Your task to perform on an android device: change text size in settings app Image 0: 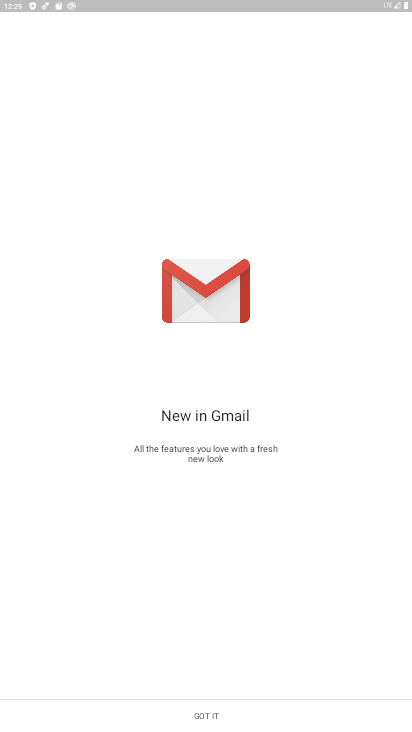
Step 0: press home button
Your task to perform on an android device: change text size in settings app Image 1: 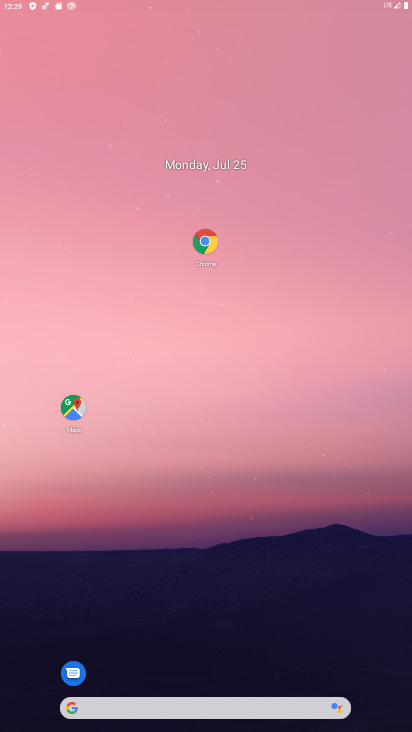
Step 1: drag from (280, 655) to (371, 13)
Your task to perform on an android device: change text size in settings app Image 2: 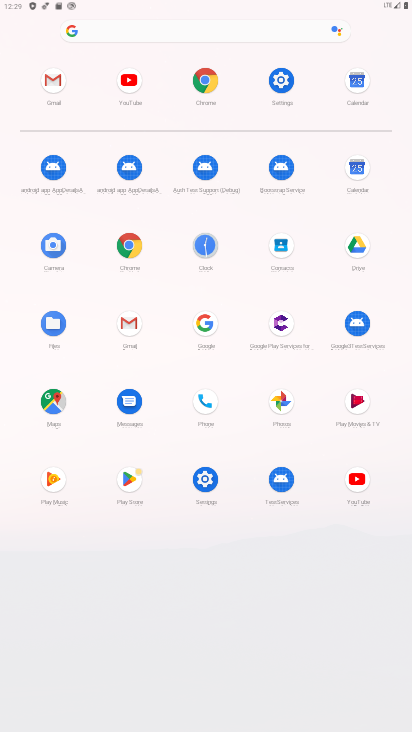
Step 2: click (270, 79)
Your task to perform on an android device: change text size in settings app Image 3: 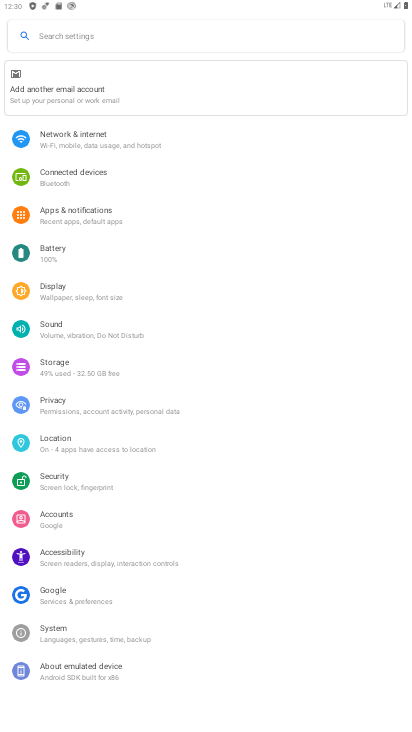
Step 3: click (86, 560)
Your task to perform on an android device: change text size in settings app Image 4: 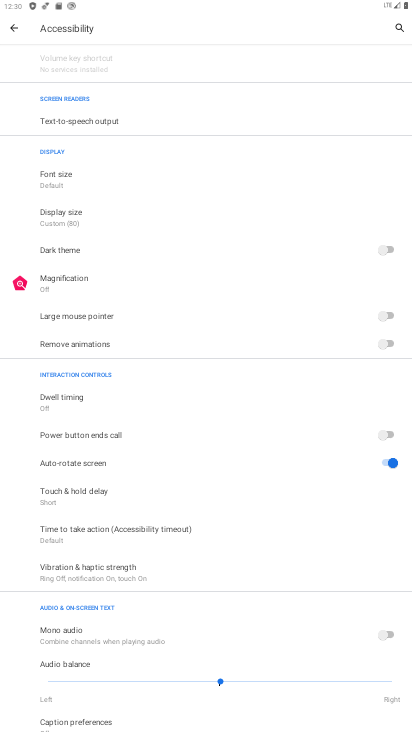
Step 4: click (347, 172)
Your task to perform on an android device: change text size in settings app Image 5: 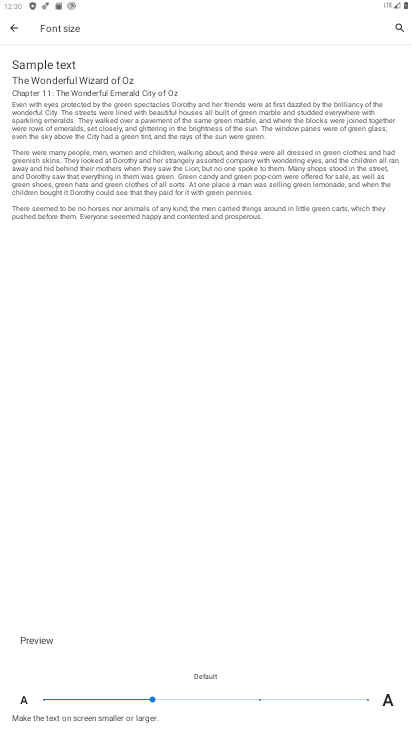
Step 5: click (257, 701)
Your task to perform on an android device: change text size in settings app Image 6: 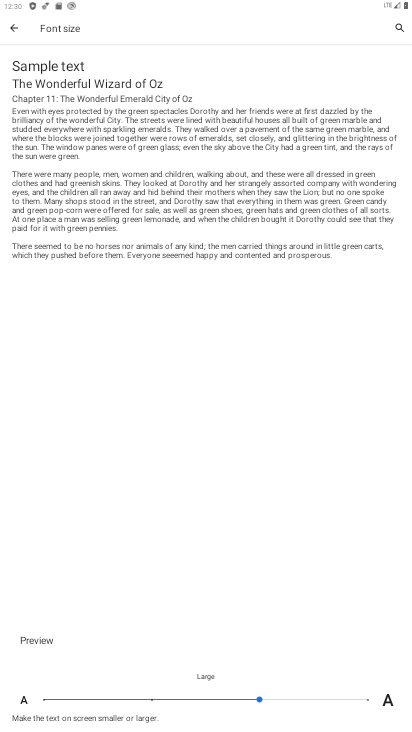
Step 6: task complete